Your task to perform on an android device: move a message to another label in the gmail app Image 0: 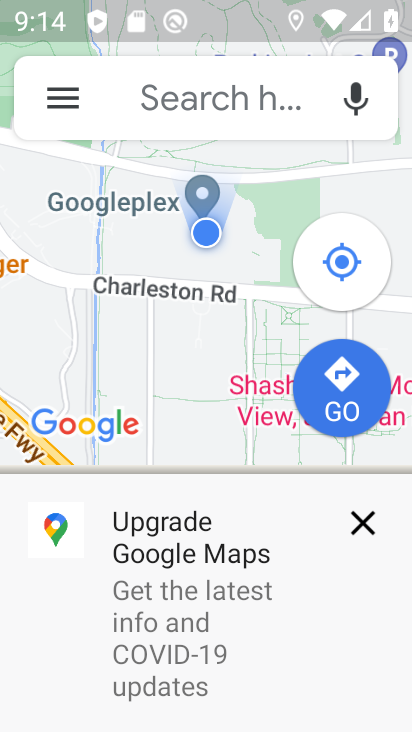
Step 0: click (358, 529)
Your task to perform on an android device: move a message to another label in the gmail app Image 1: 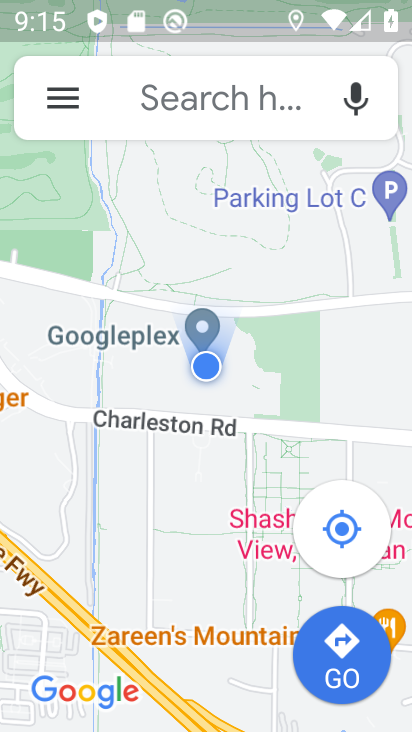
Step 1: press home button
Your task to perform on an android device: move a message to another label in the gmail app Image 2: 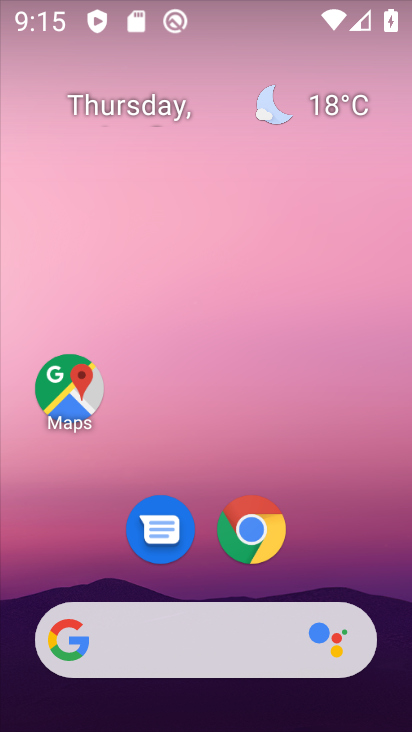
Step 2: drag from (379, 522) to (308, 77)
Your task to perform on an android device: move a message to another label in the gmail app Image 3: 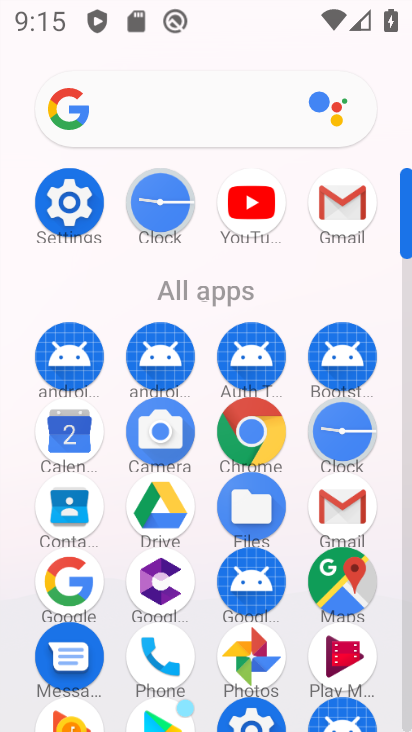
Step 3: click (340, 203)
Your task to perform on an android device: move a message to another label in the gmail app Image 4: 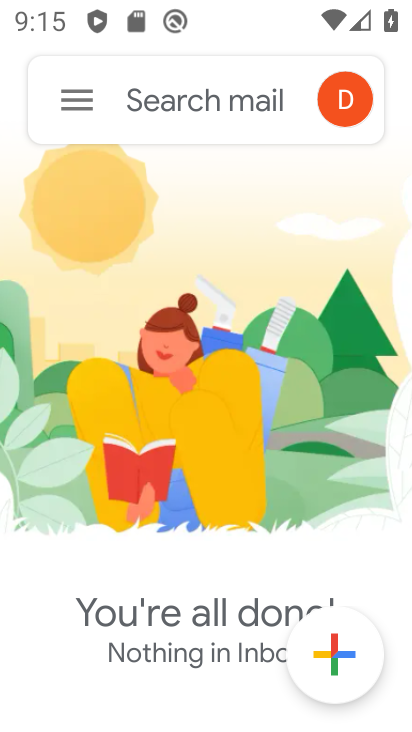
Step 4: click (83, 92)
Your task to perform on an android device: move a message to another label in the gmail app Image 5: 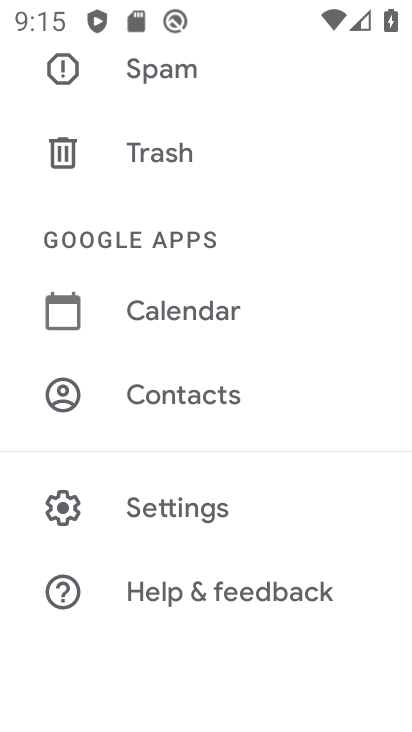
Step 5: drag from (258, 102) to (322, 698)
Your task to perform on an android device: move a message to another label in the gmail app Image 6: 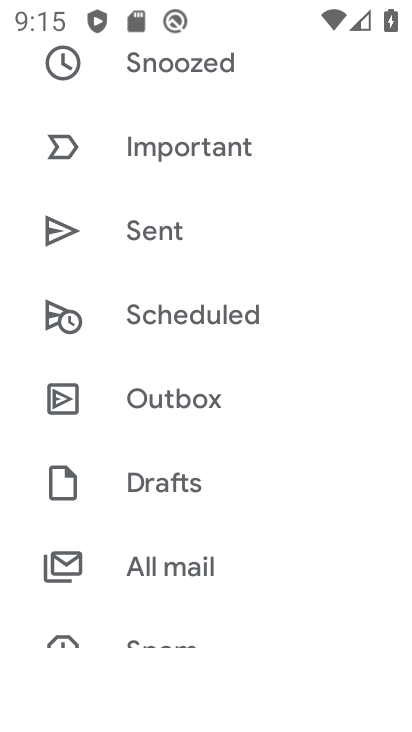
Step 6: drag from (295, 70) to (333, 694)
Your task to perform on an android device: move a message to another label in the gmail app Image 7: 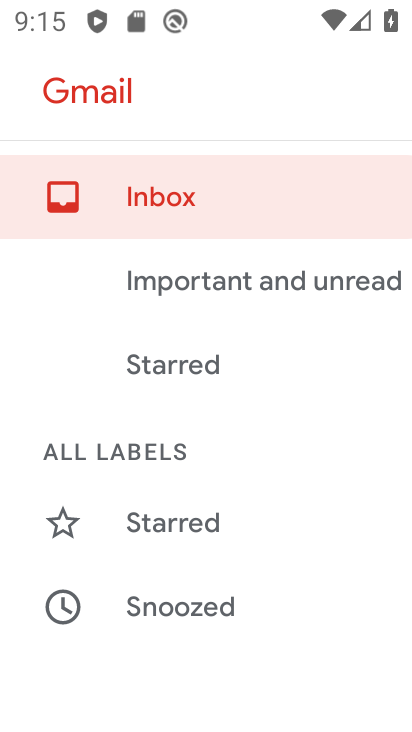
Step 7: click (120, 200)
Your task to perform on an android device: move a message to another label in the gmail app Image 8: 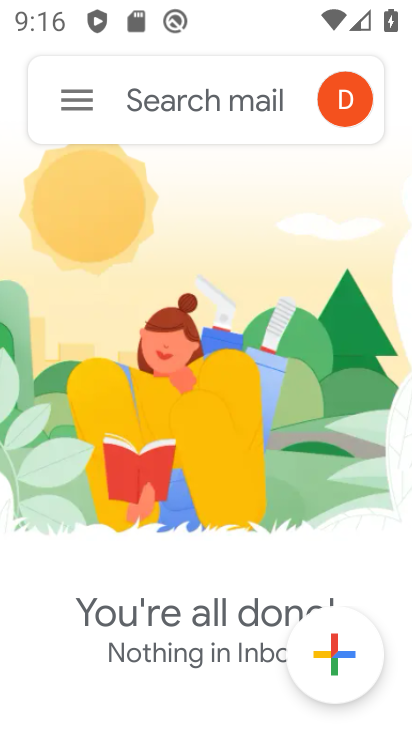
Step 8: task complete